Your task to perform on an android device: Go to settings Image 0: 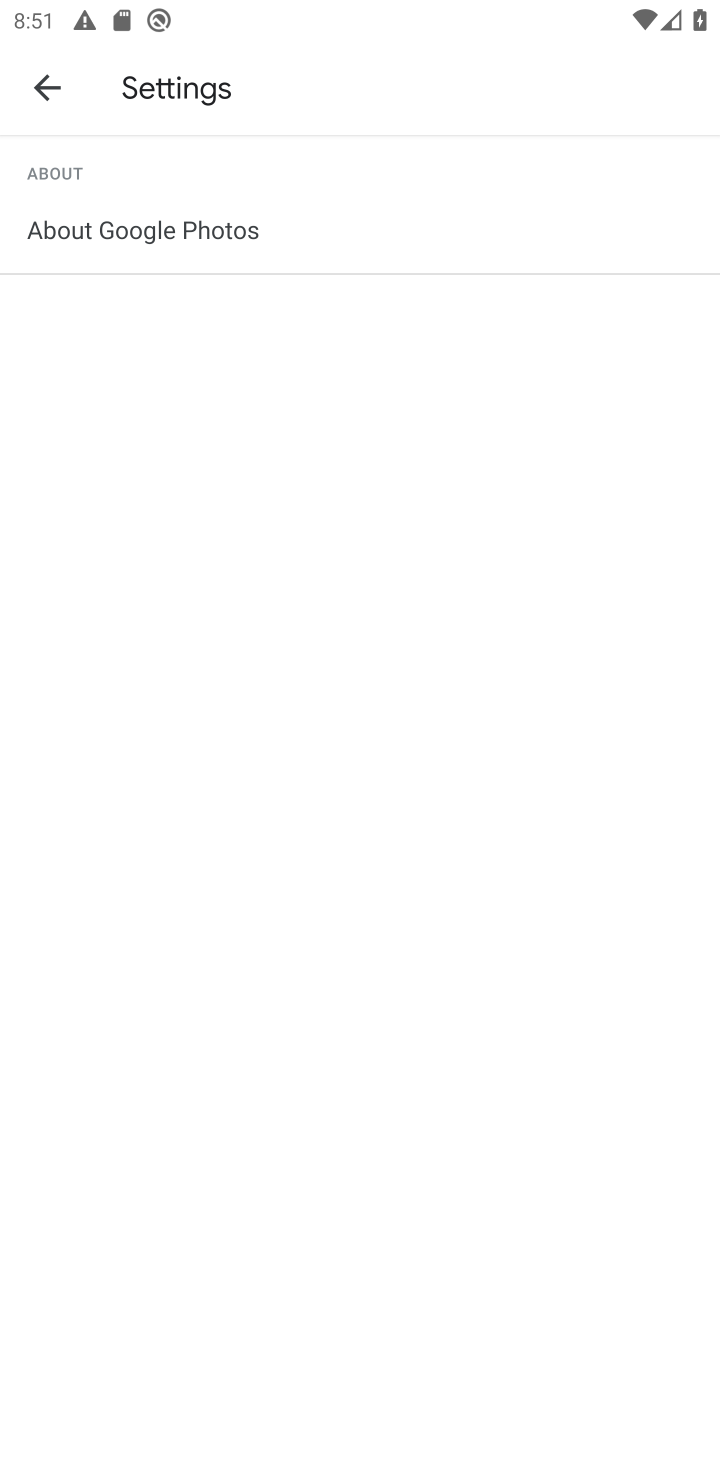
Step 0: press back button
Your task to perform on an android device: Go to settings Image 1: 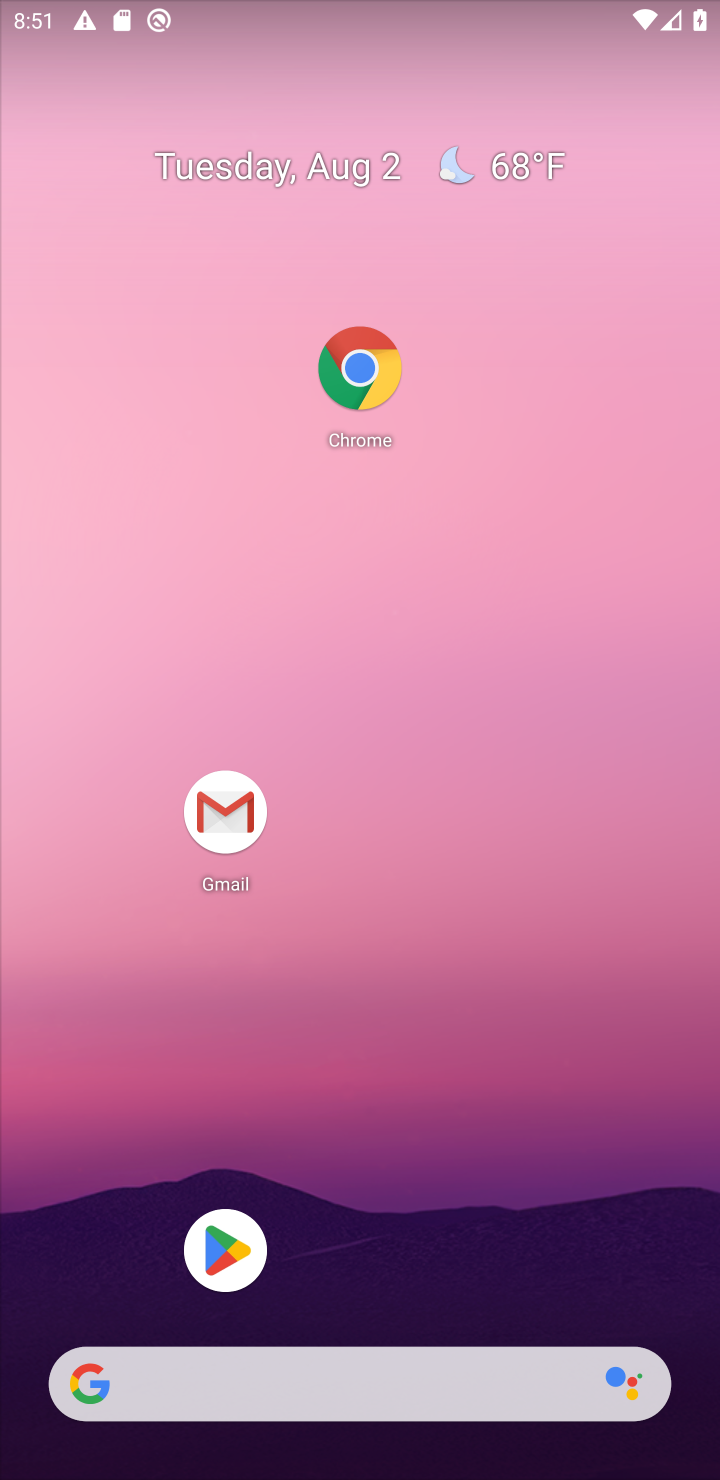
Step 1: drag from (424, 659) to (442, 320)
Your task to perform on an android device: Go to settings Image 2: 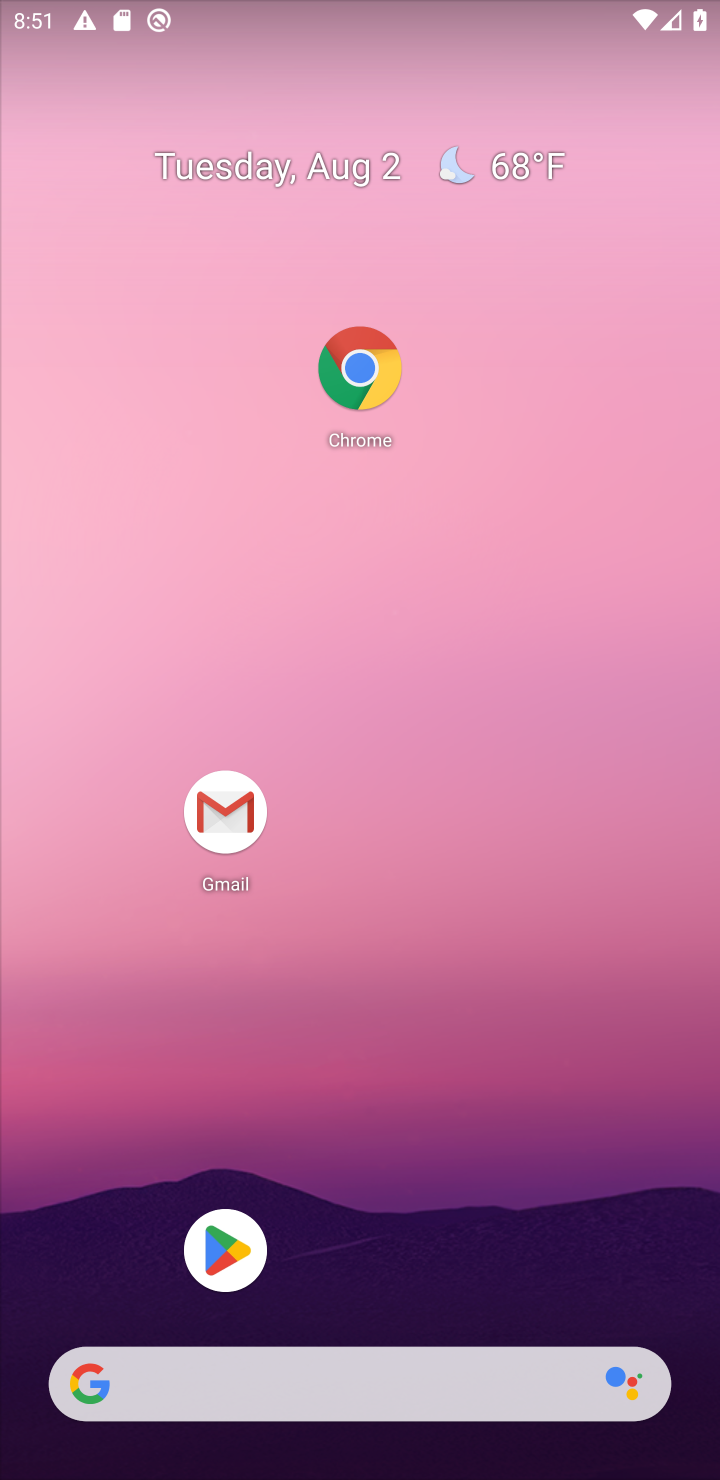
Step 2: click (382, 362)
Your task to perform on an android device: Go to settings Image 3: 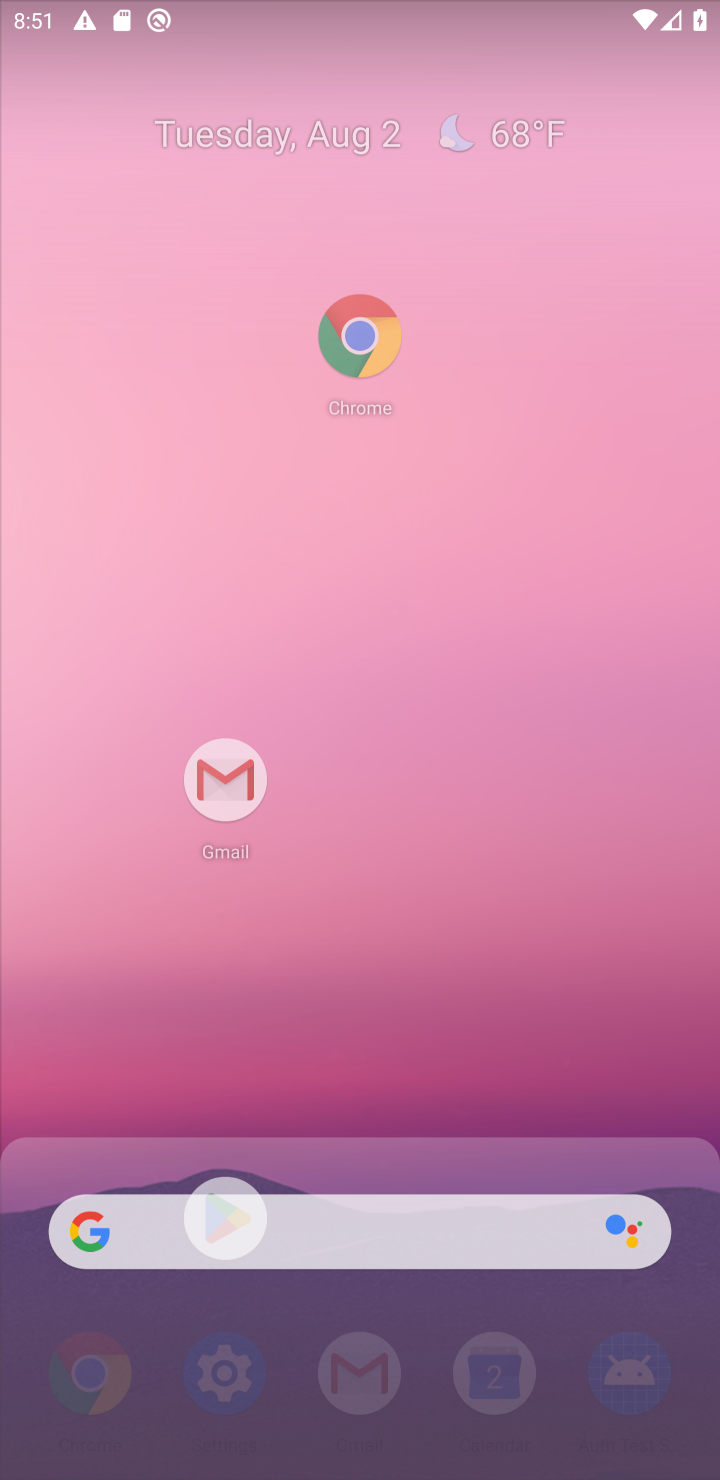
Step 3: drag from (378, 779) to (306, 483)
Your task to perform on an android device: Go to settings Image 4: 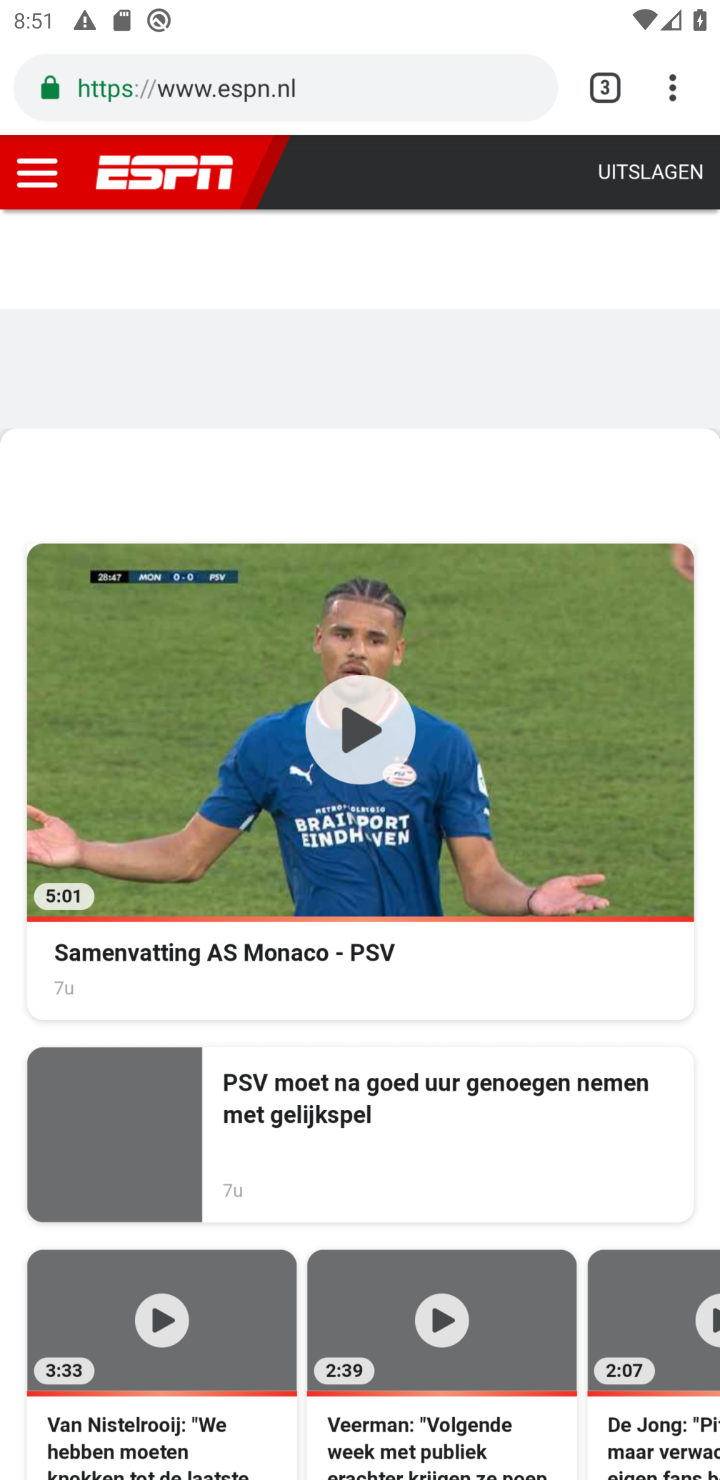
Step 4: click (340, 793)
Your task to perform on an android device: Go to settings Image 5: 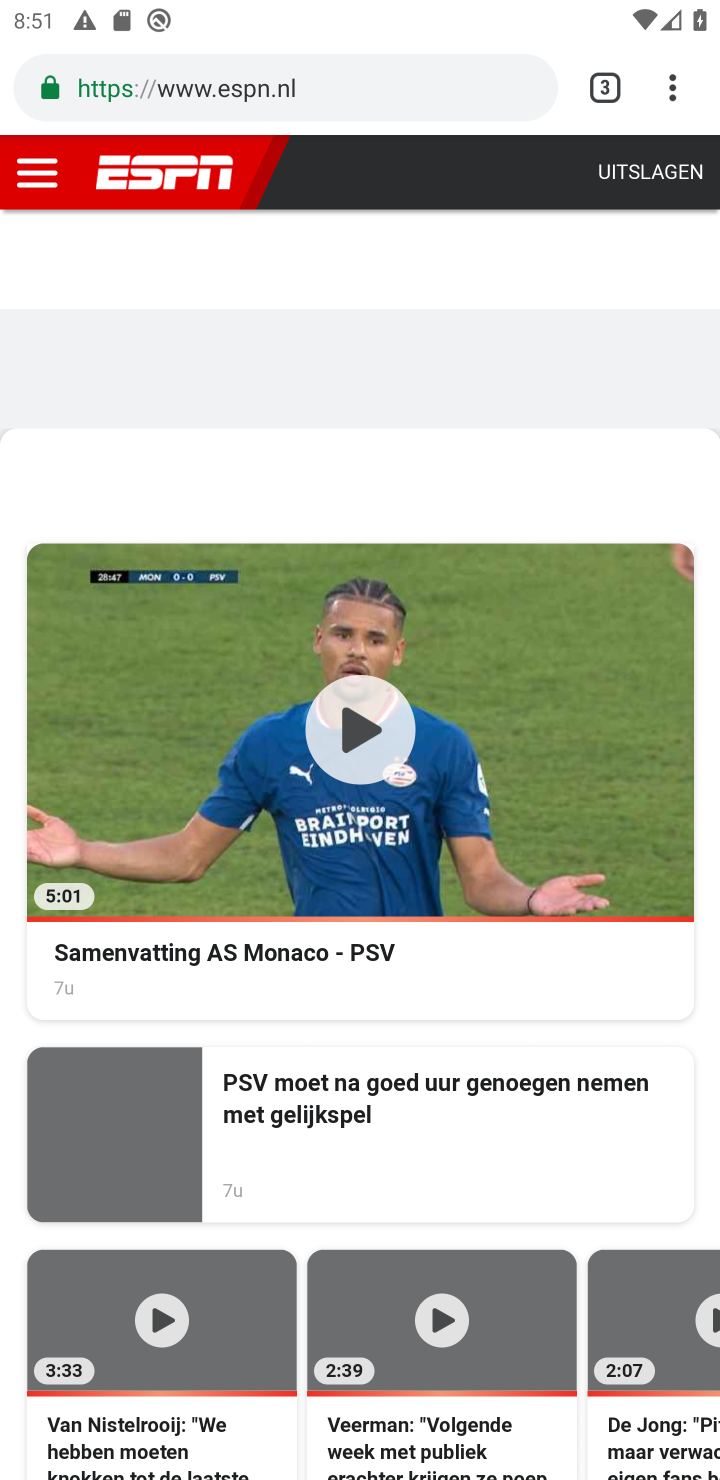
Step 5: press back button
Your task to perform on an android device: Go to settings Image 6: 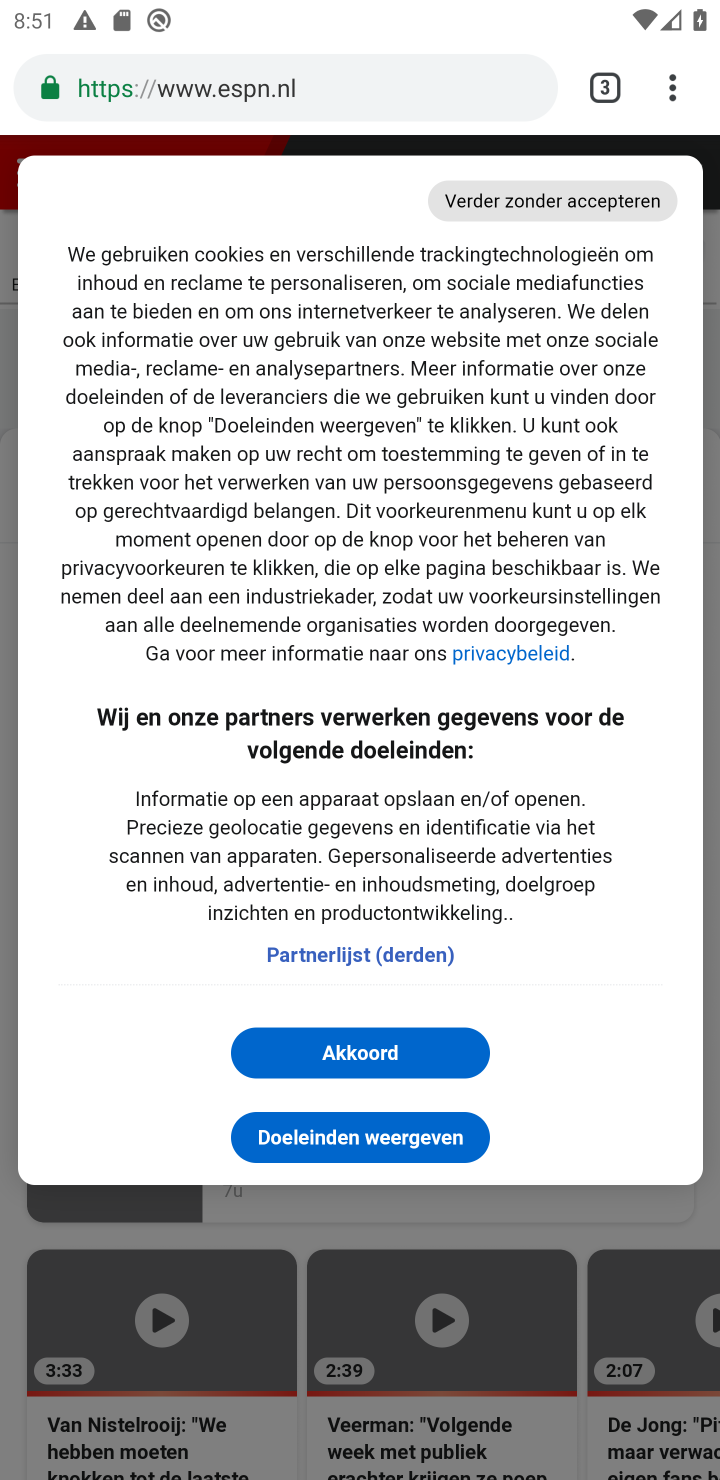
Step 6: press back button
Your task to perform on an android device: Go to settings Image 7: 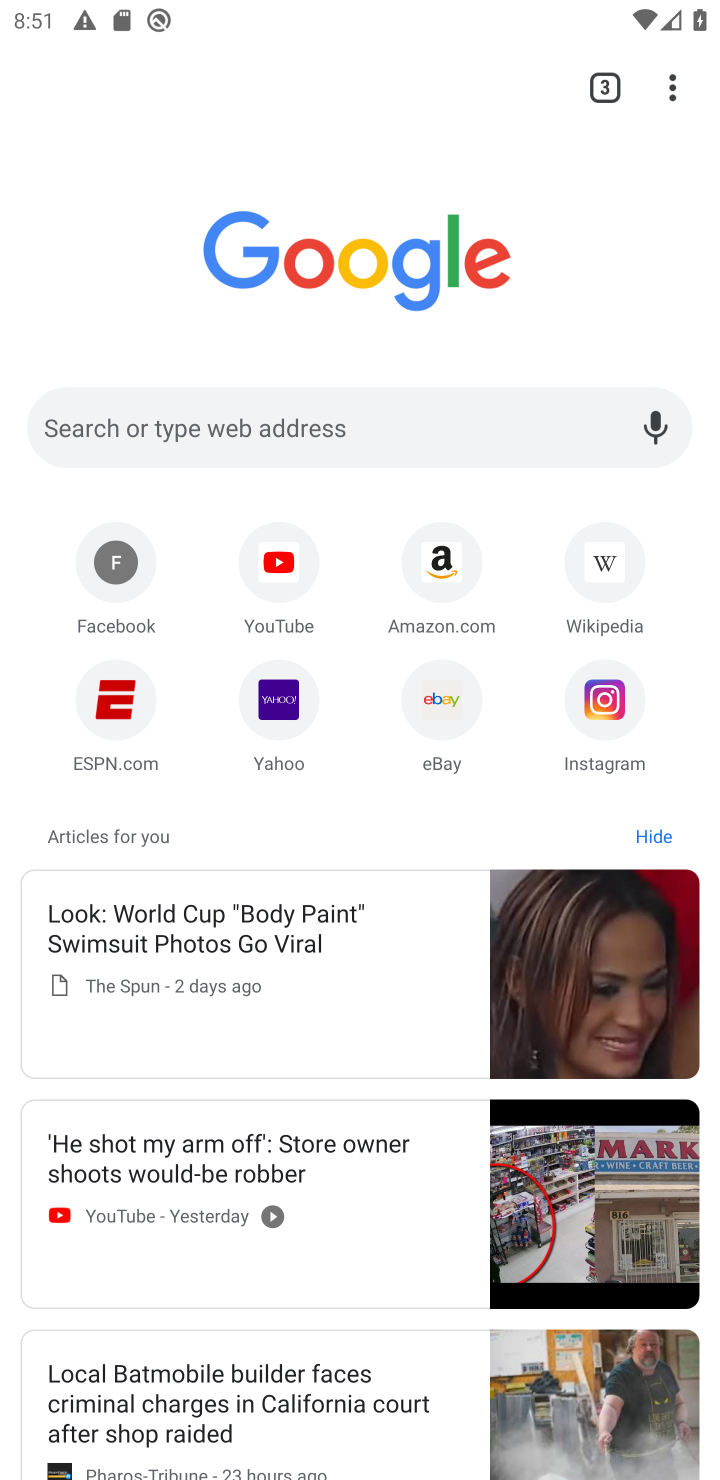
Step 7: press home button
Your task to perform on an android device: Go to settings Image 8: 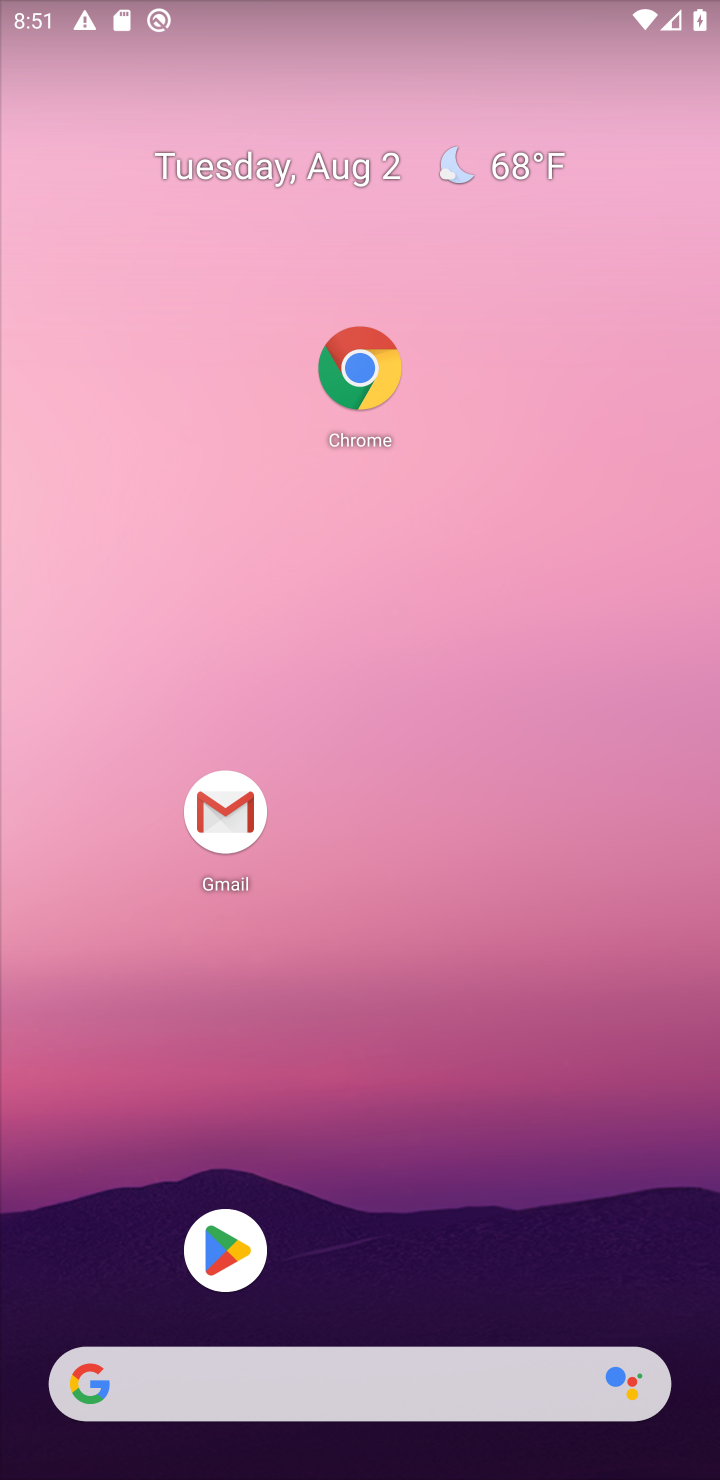
Step 8: click (394, 679)
Your task to perform on an android device: Go to settings Image 9: 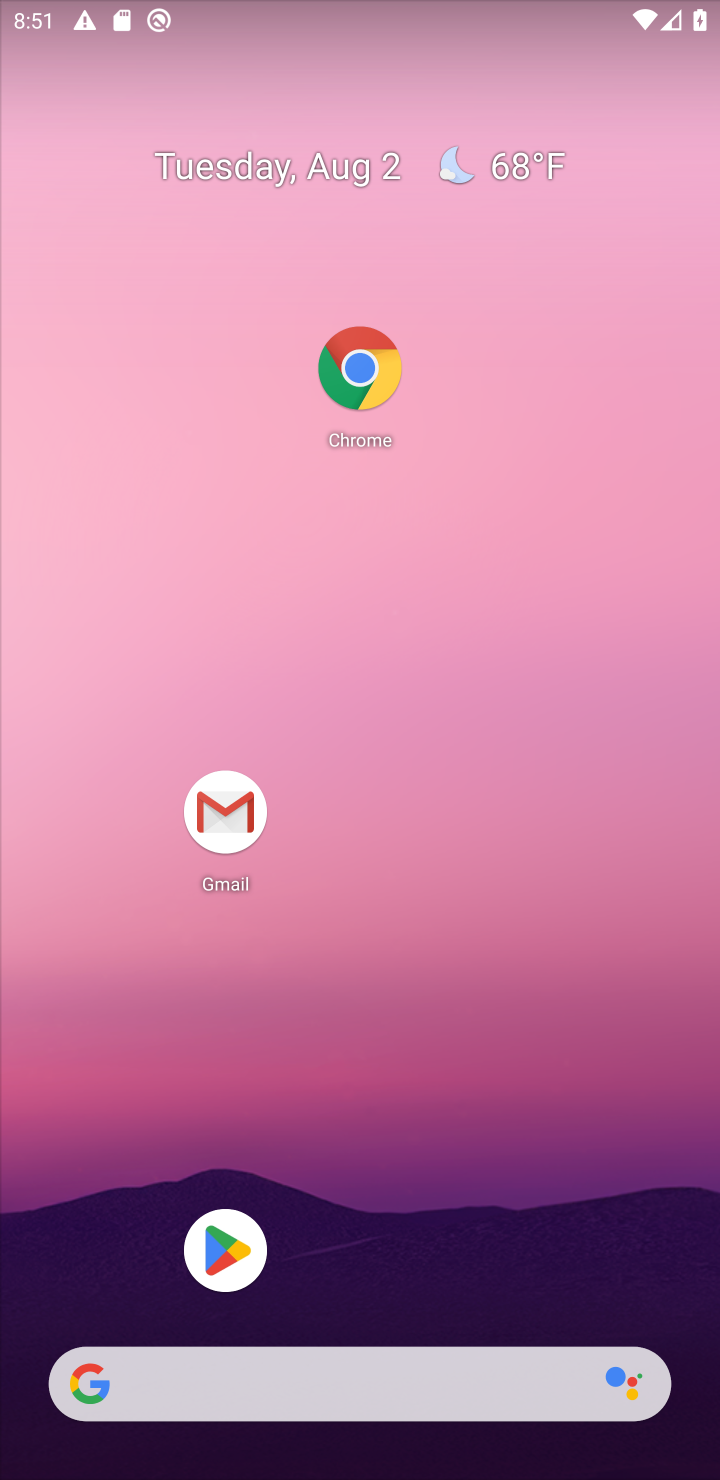
Step 9: drag from (496, 949) to (487, 430)
Your task to perform on an android device: Go to settings Image 10: 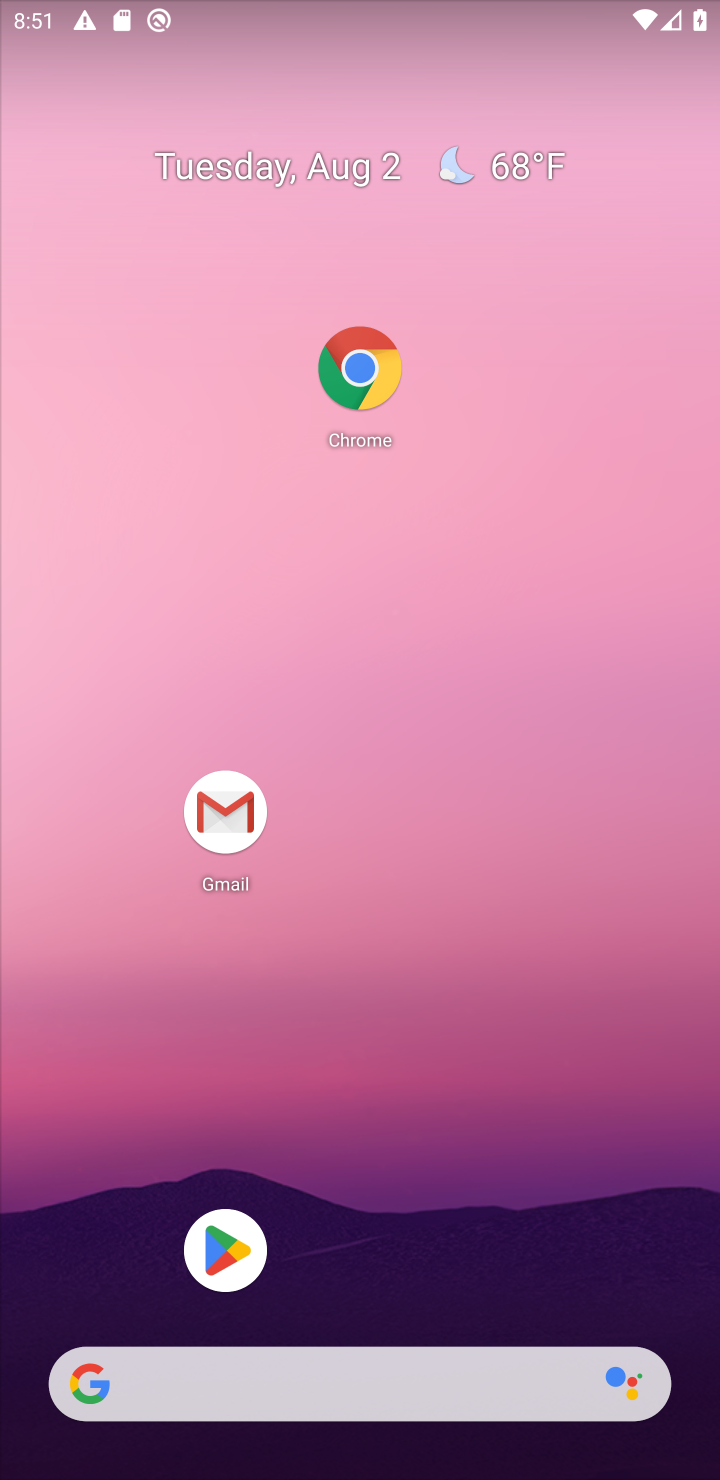
Step 10: click (308, 371)
Your task to perform on an android device: Go to settings Image 11: 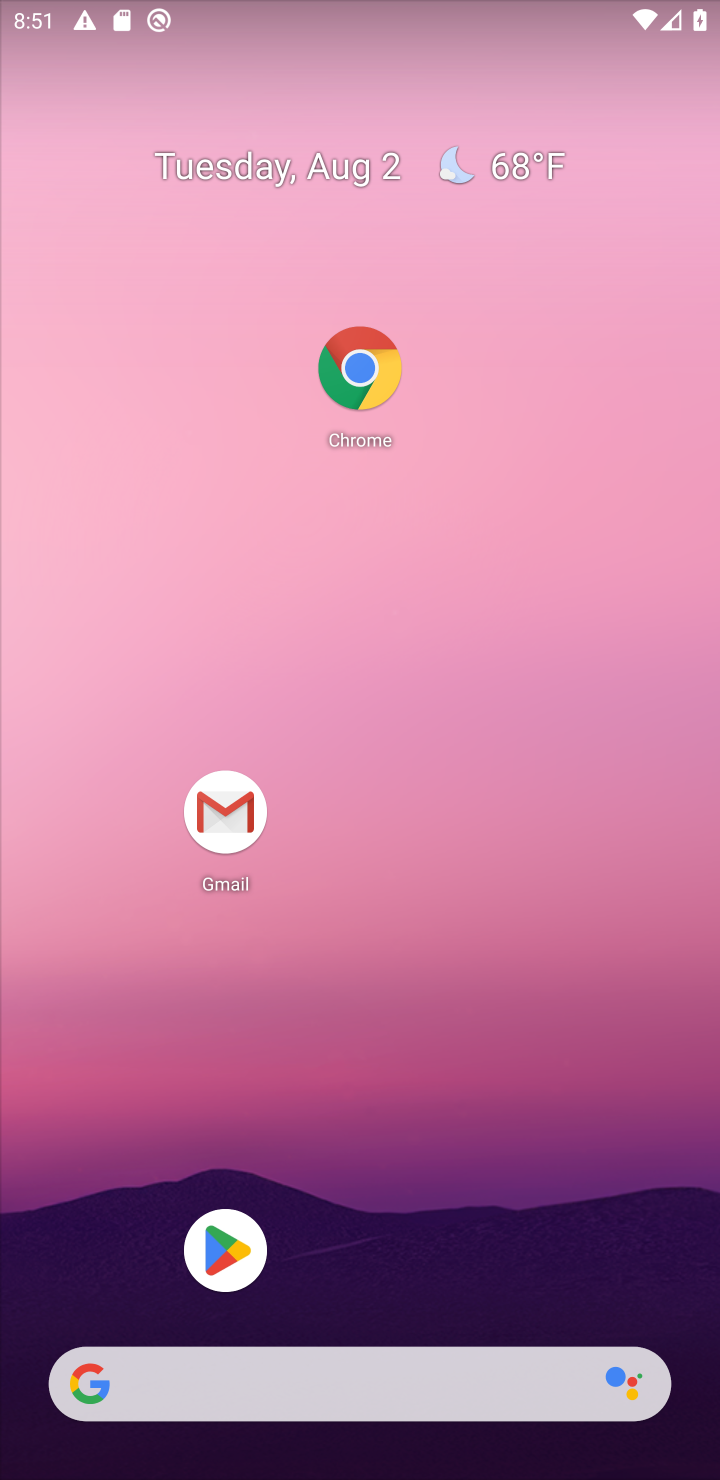
Step 11: click (432, 396)
Your task to perform on an android device: Go to settings Image 12: 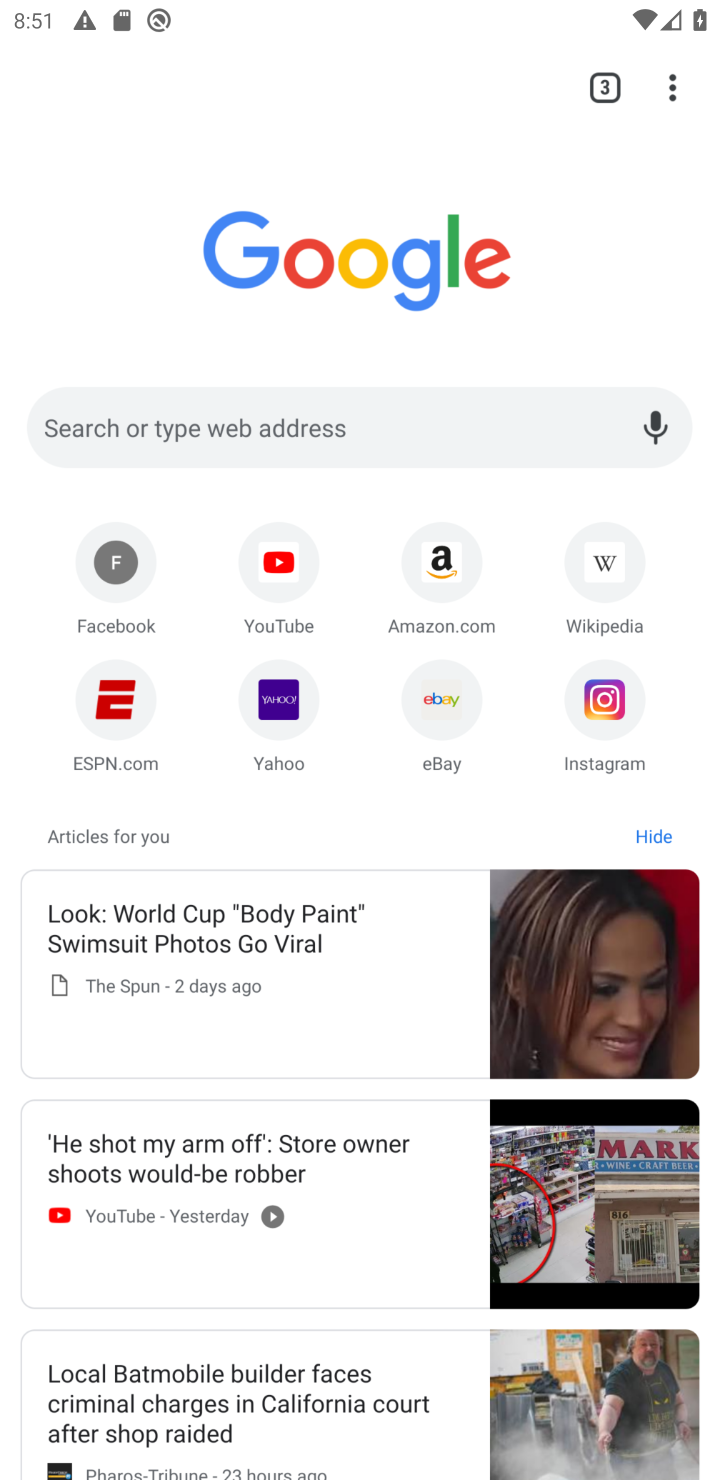
Step 12: click (303, 429)
Your task to perform on an android device: Go to settings Image 13: 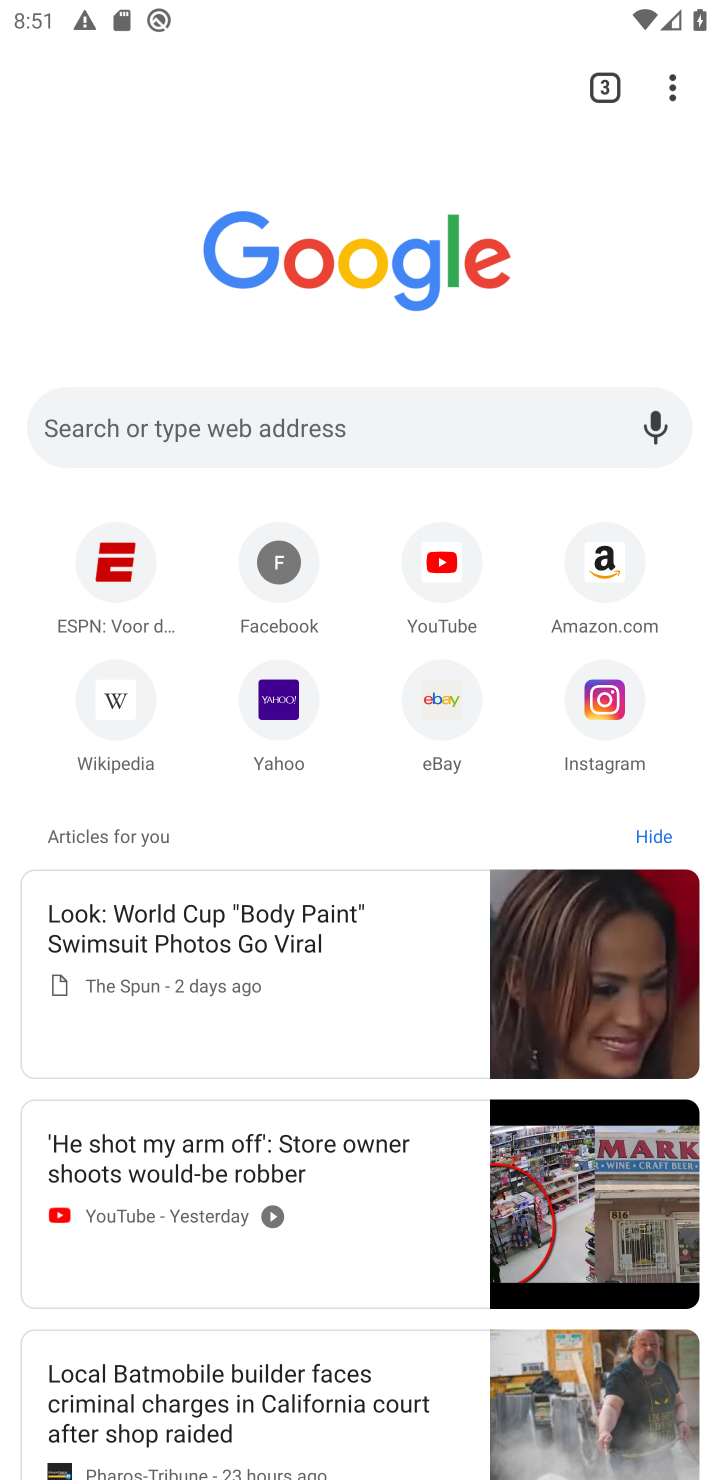
Step 13: press back button
Your task to perform on an android device: Go to settings Image 14: 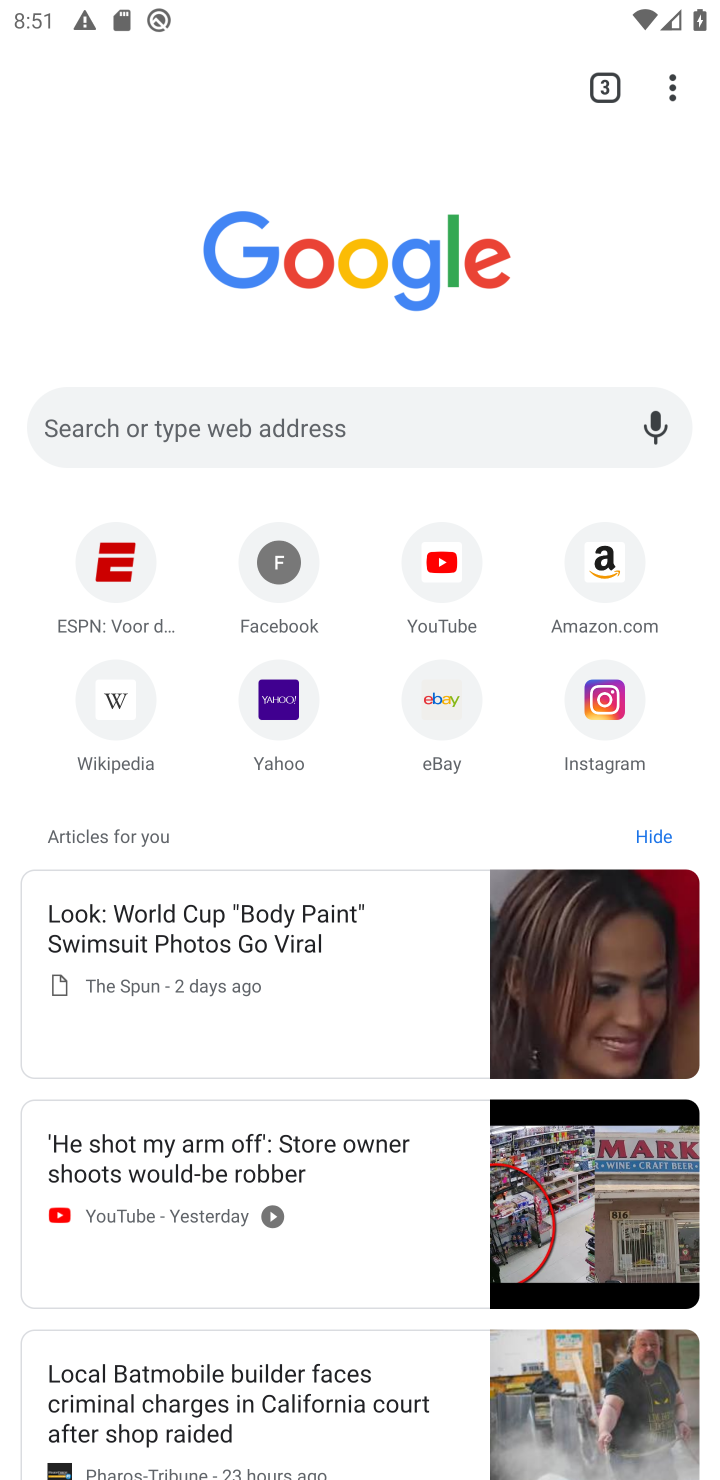
Step 14: press back button
Your task to perform on an android device: Go to settings Image 15: 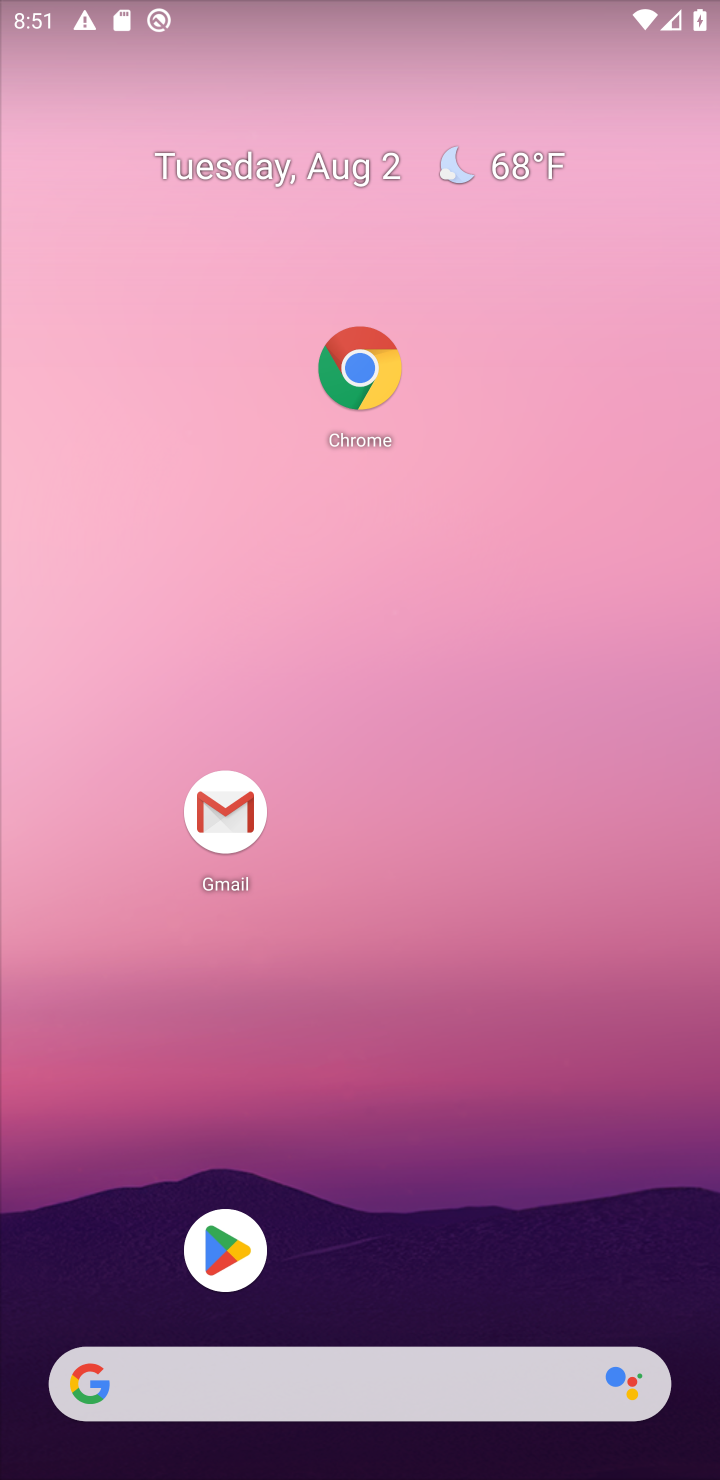
Step 15: press back button
Your task to perform on an android device: Go to settings Image 16: 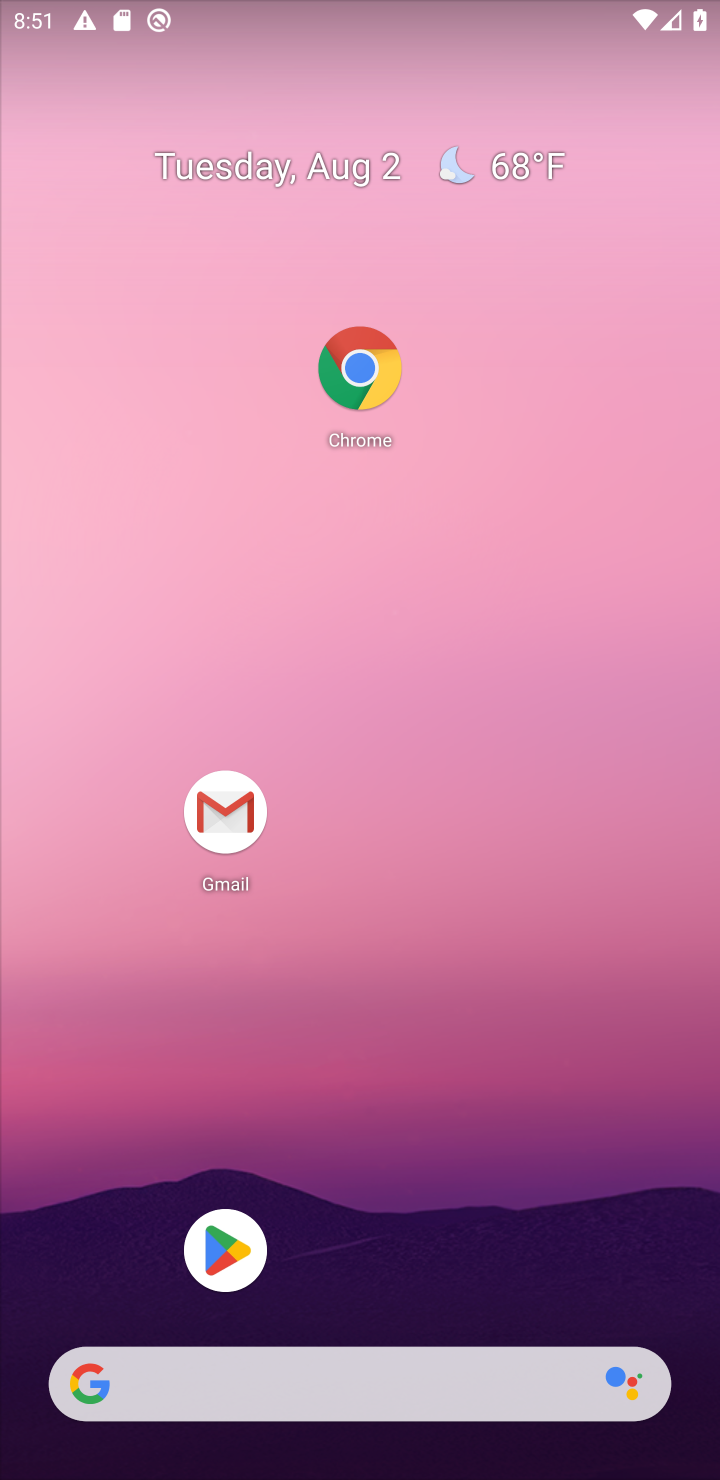
Step 16: click (356, 643)
Your task to perform on an android device: Go to settings Image 17: 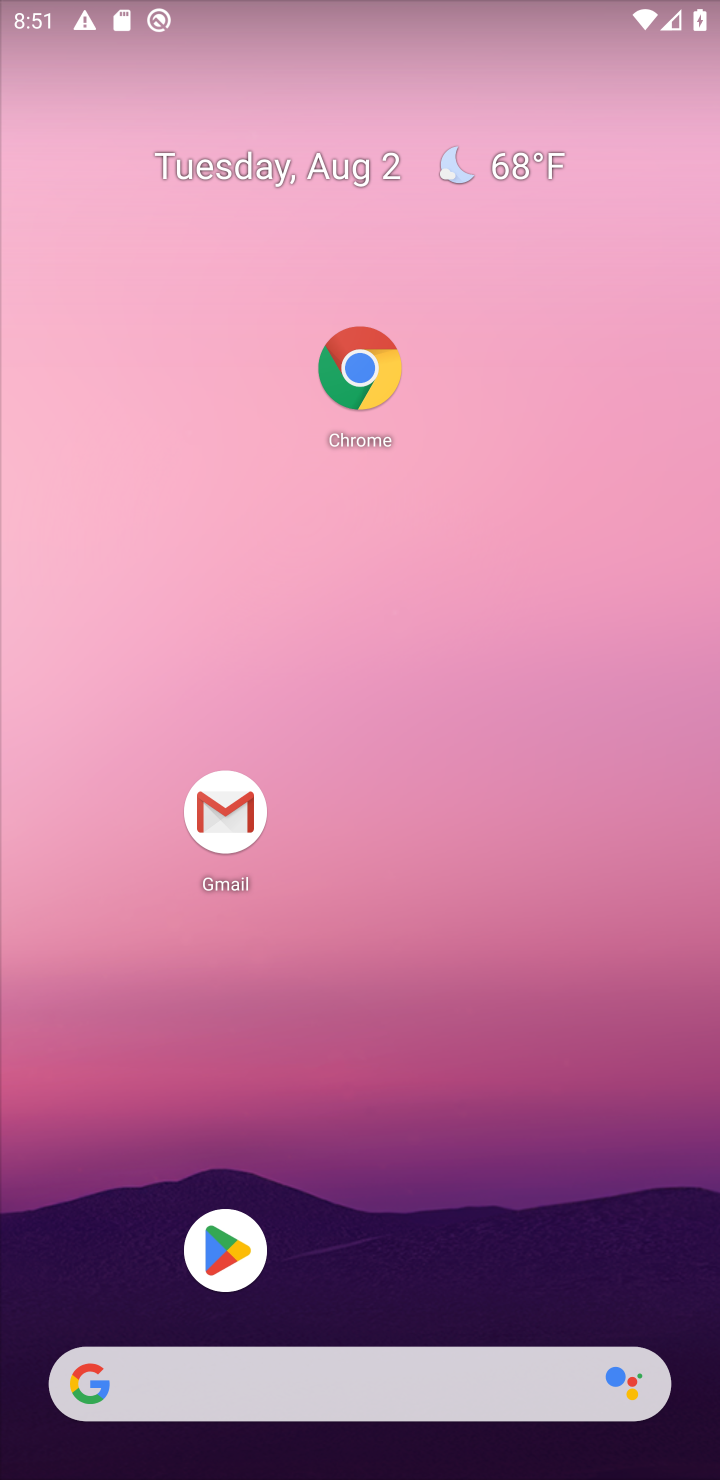
Step 17: click (345, 398)
Your task to perform on an android device: Go to settings Image 18: 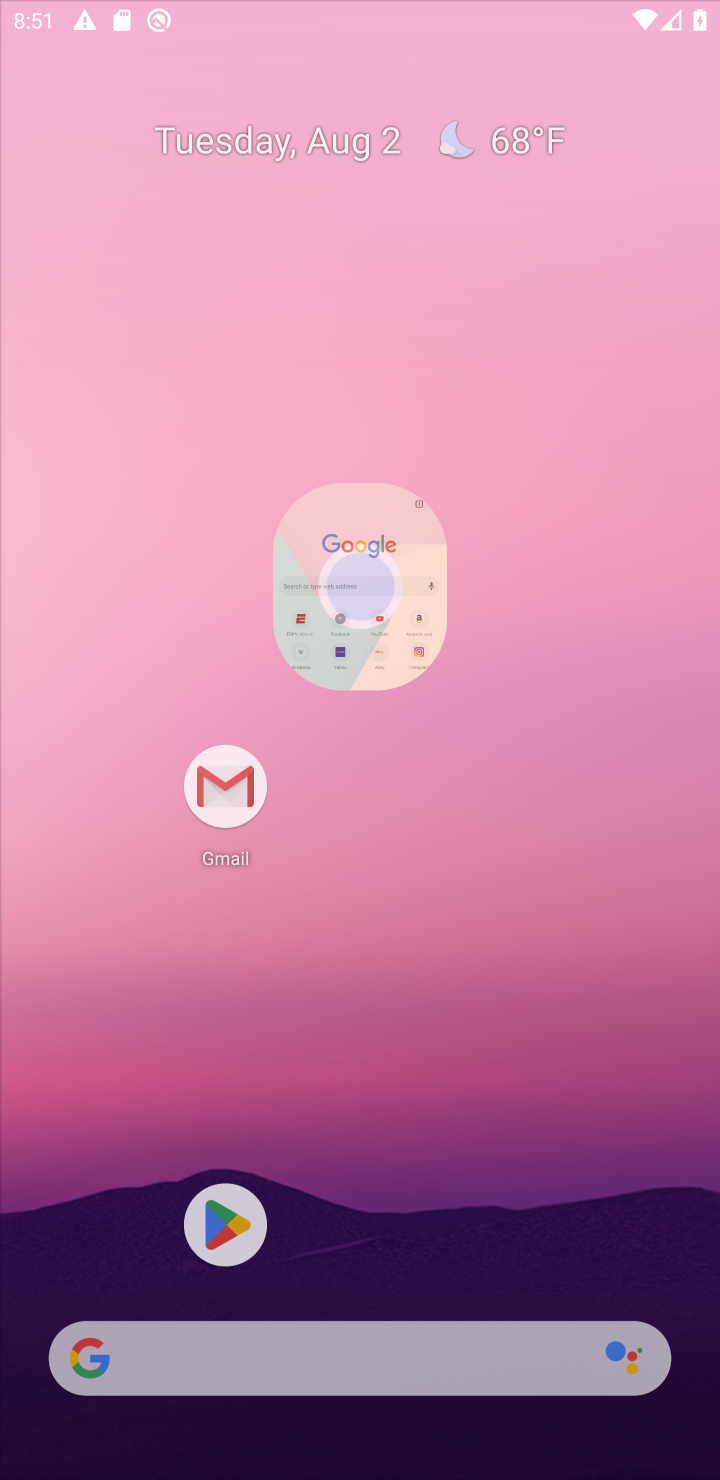
Step 18: click (458, 381)
Your task to perform on an android device: Go to settings Image 19: 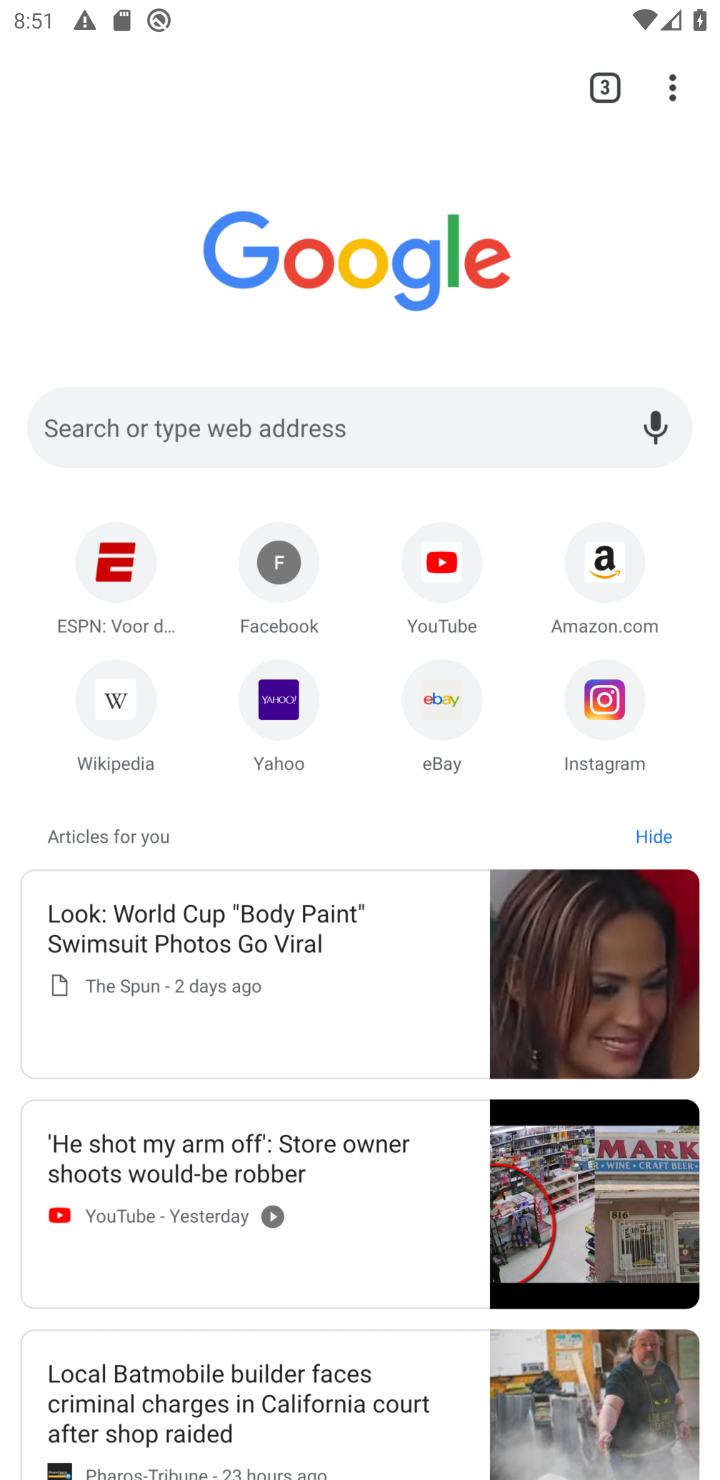
Step 19: drag from (413, 1052) to (317, 518)
Your task to perform on an android device: Go to settings Image 20: 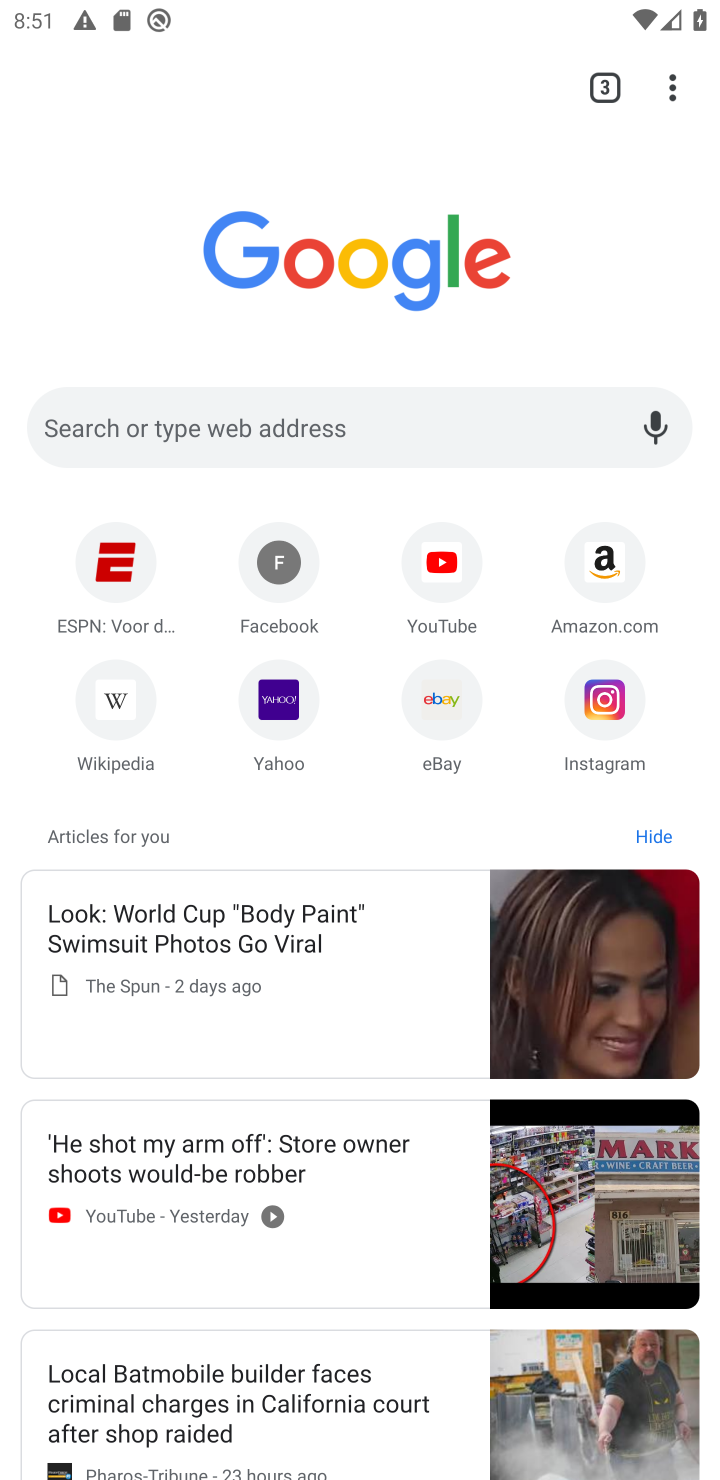
Step 20: press home button
Your task to perform on an android device: Go to settings Image 21: 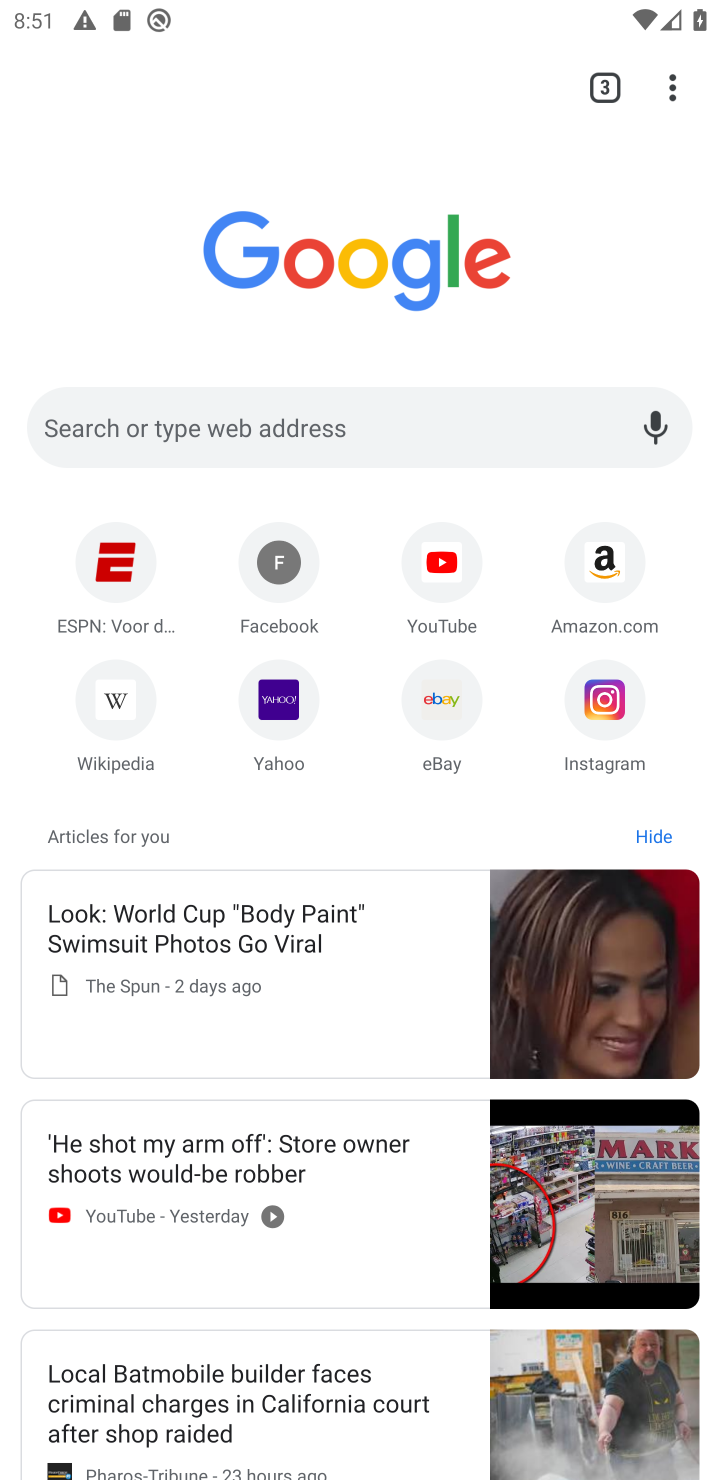
Step 21: press back button
Your task to perform on an android device: Go to settings Image 22: 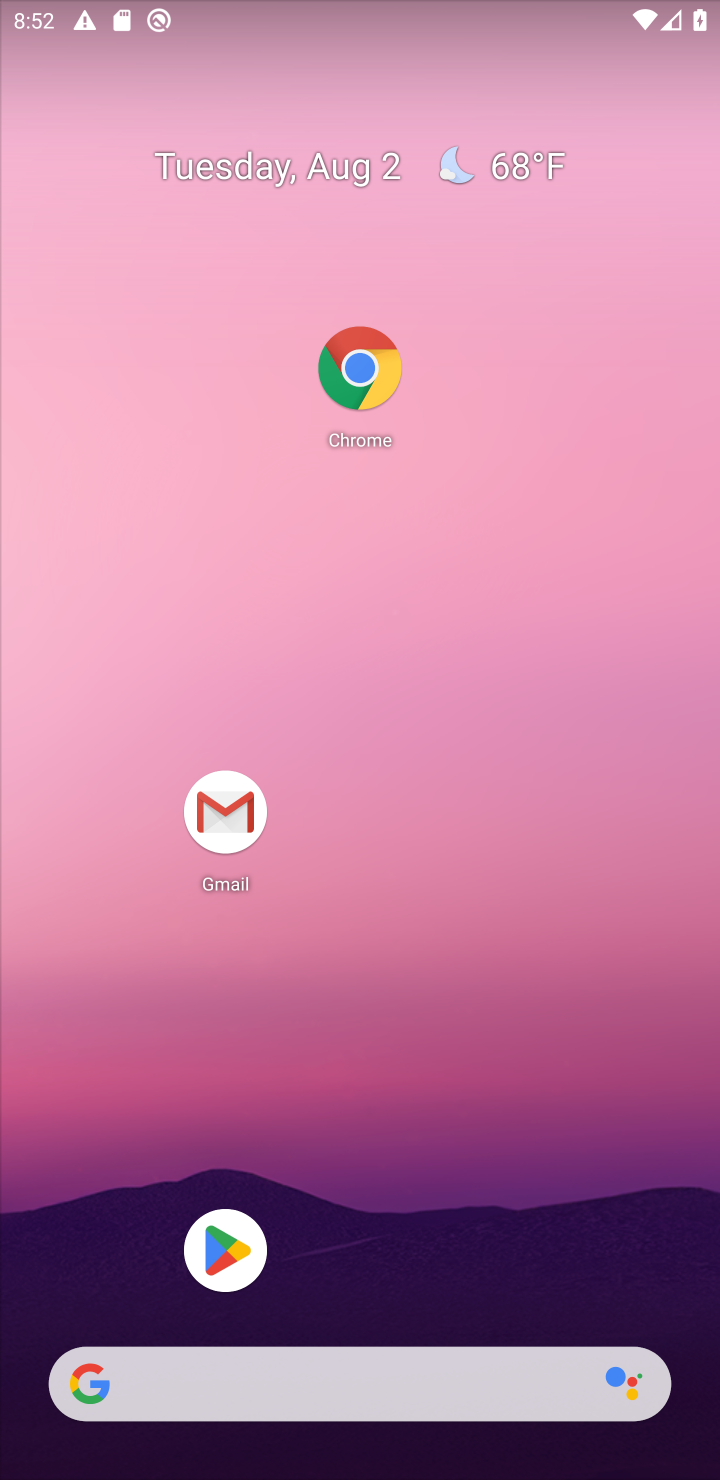
Step 22: drag from (384, 1399) to (310, 335)
Your task to perform on an android device: Go to settings Image 23: 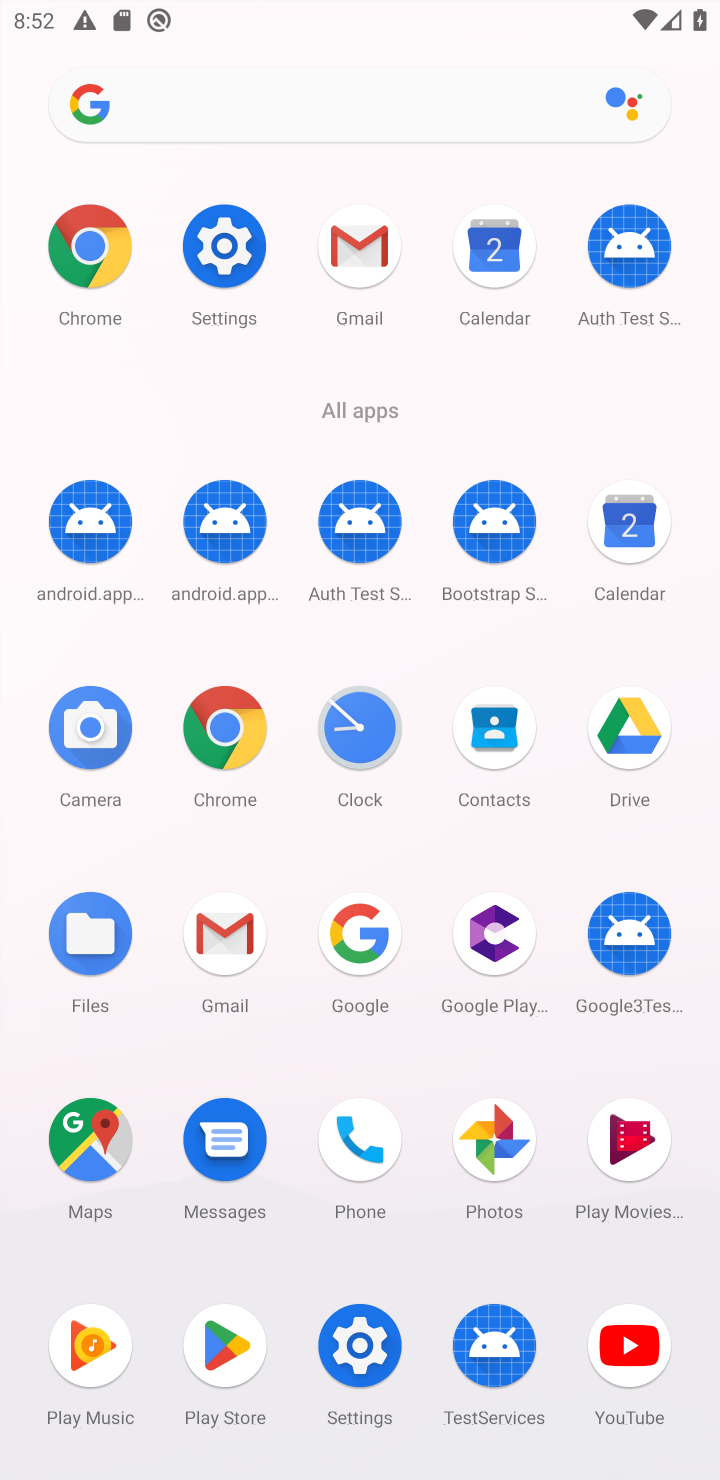
Step 23: click (232, 261)
Your task to perform on an android device: Go to settings Image 24: 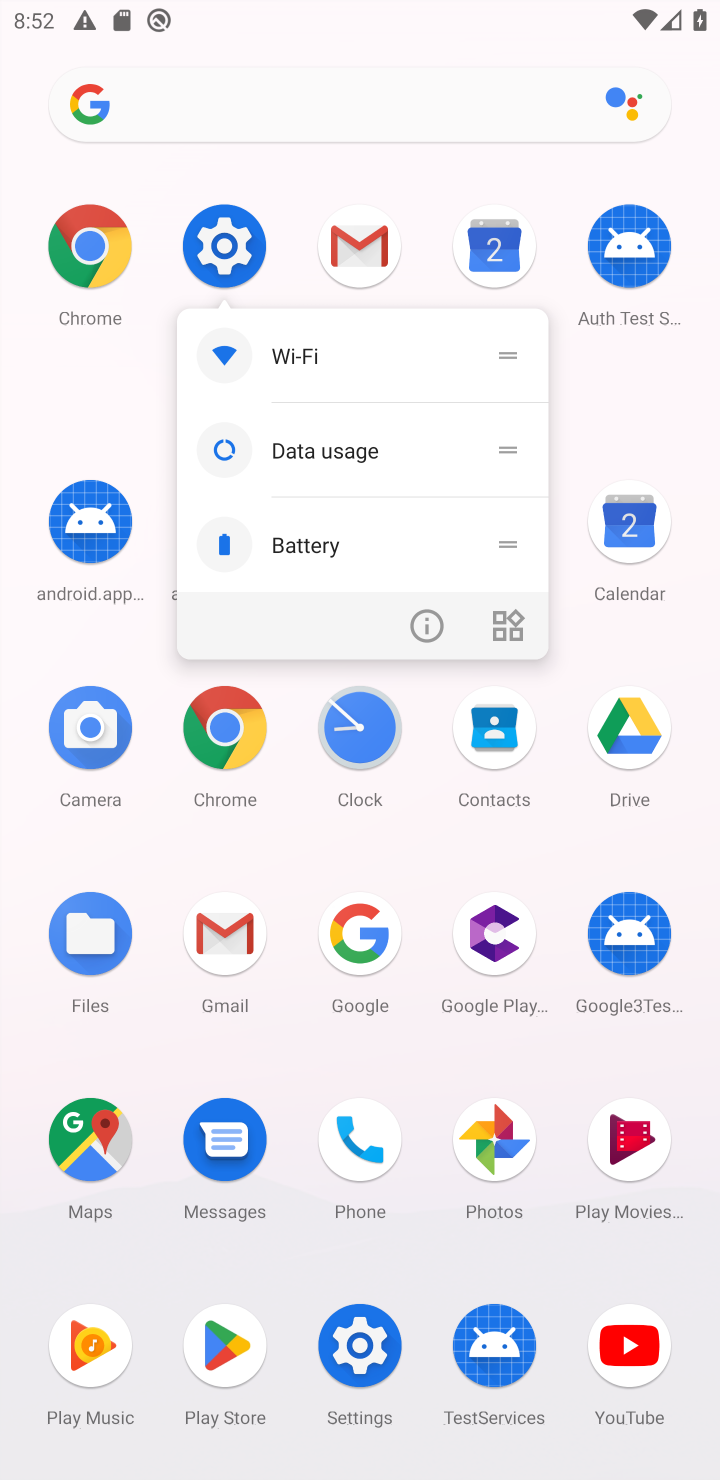
Step 24: click (232, 261)
Your task to perform on an android device: Go to settings Image 25: 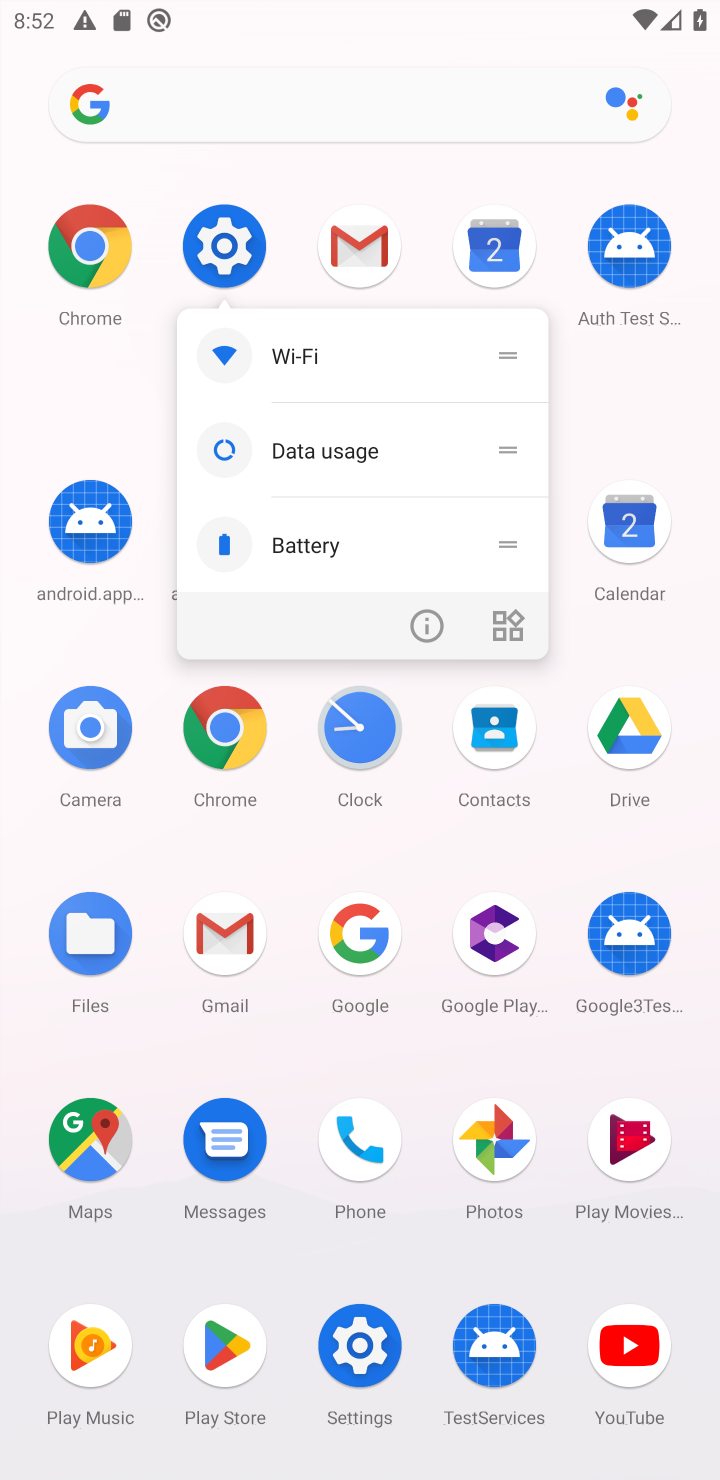
Step 25: click (203, 237)
Your task to perform on an android device: Go to settings Image 26: 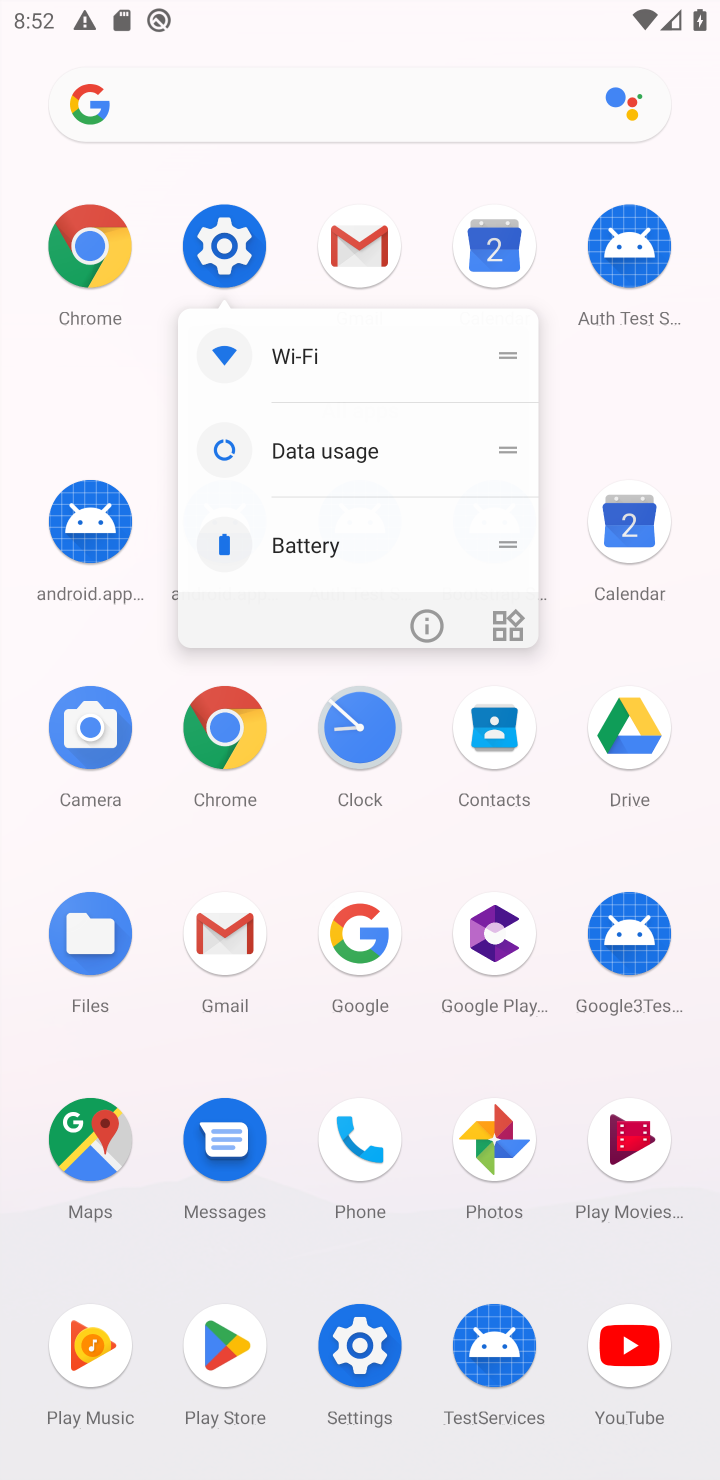
Step 26: click (203, 235)
Your task to perform on an android device: Go to settings Image 27: 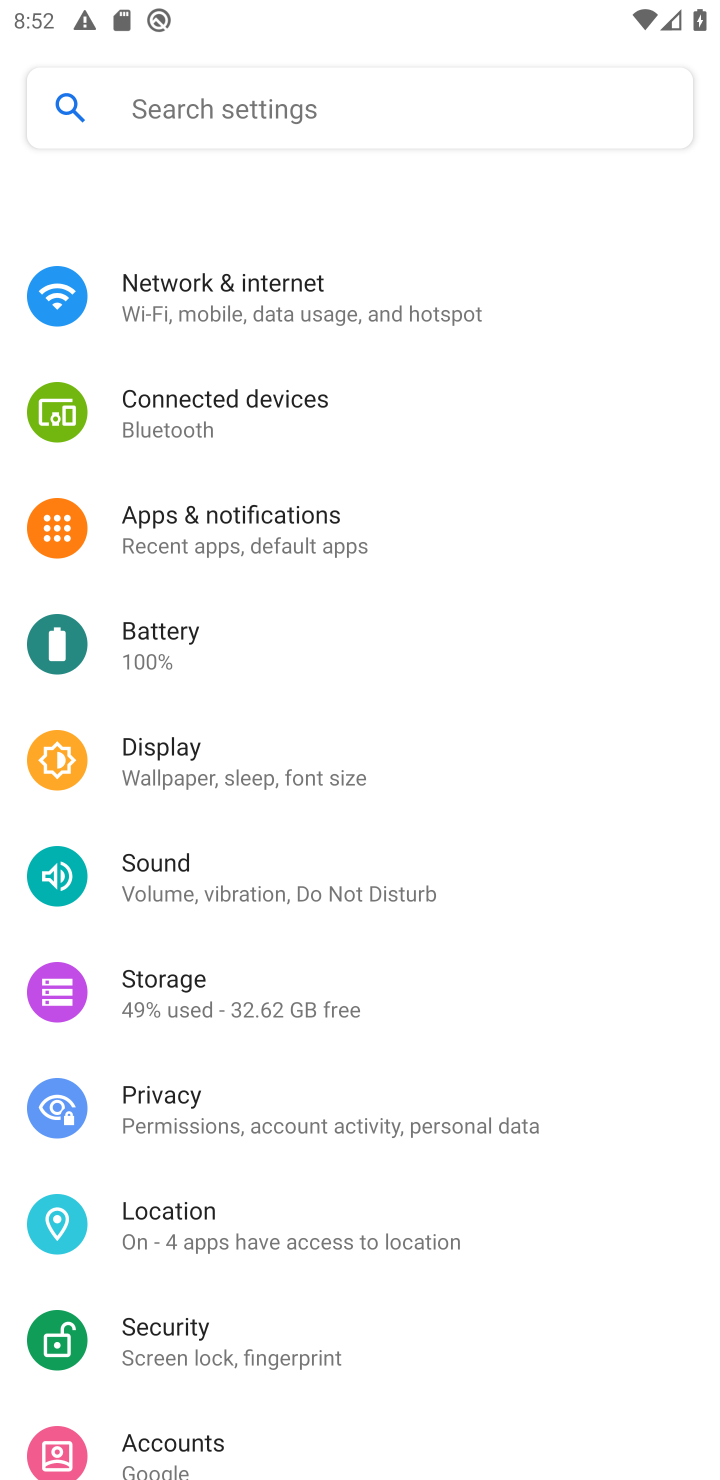
Step 27: click (213, 231)
Your task to perform on an android device: Go to settings Image 28: 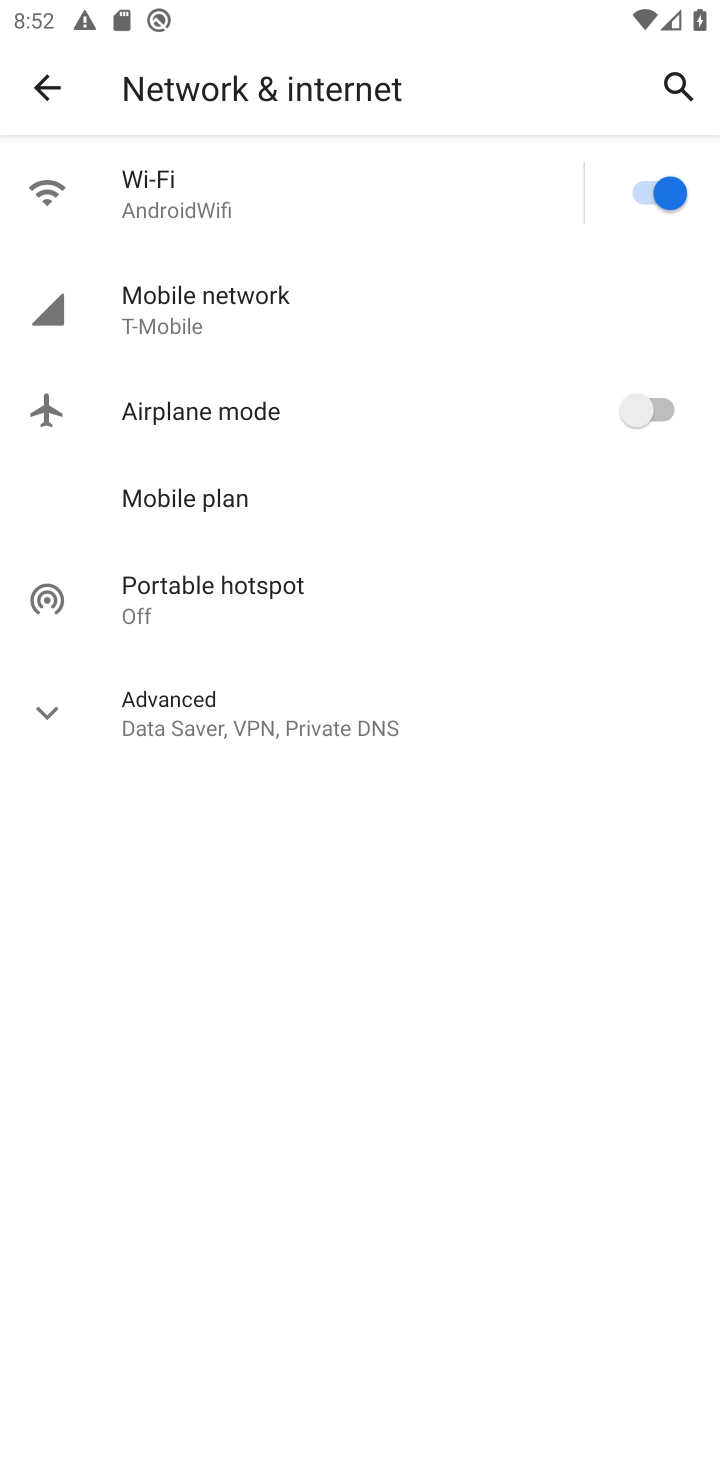
Step 28: click (34, 72)
Your task to perform on an android device: Go to settings Image 29: 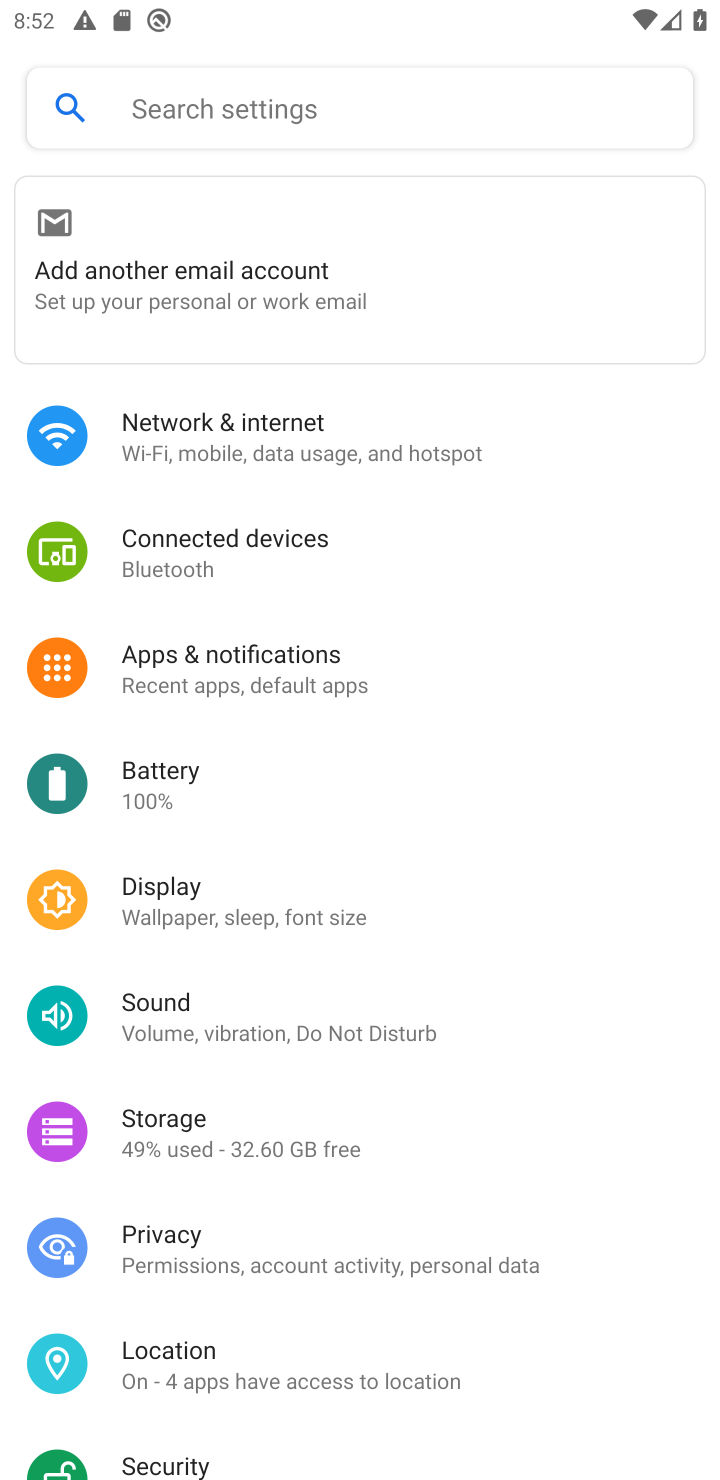
Step 29: task complete